Your task to perform on an android device: add a label to a message in the gmail app Image 0: 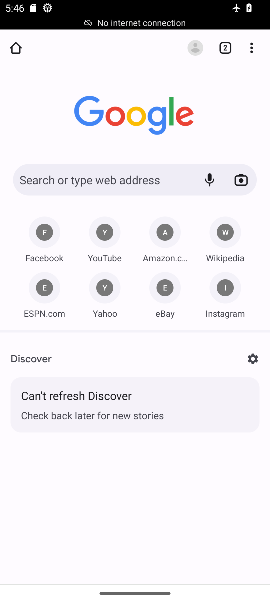
Step 0: press home button
Your task to perform on an android device: add a label to a message in the gmail app Image 1: 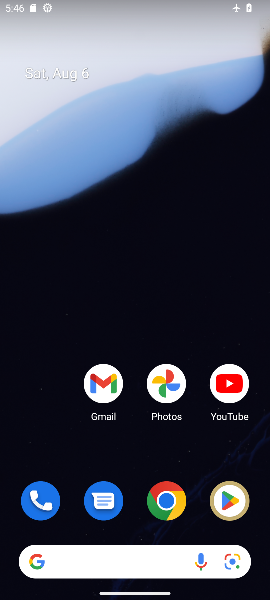
Step 1: click (109, 386)
Your task to perform on an android device: add a label to a message in the gmail app Image 2: 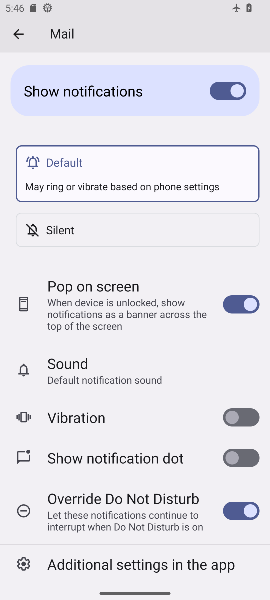
Step 2: click (21, 32)
Your task to perform on an android device: add a label to a message in the gmail app Image 3: 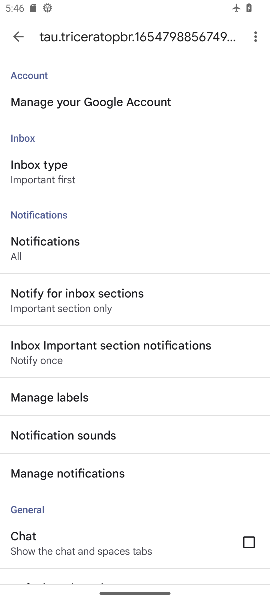
Step 3: click (20, 32)
Your task to perform on an android device: add a label to a message in the gmail app Image 4: 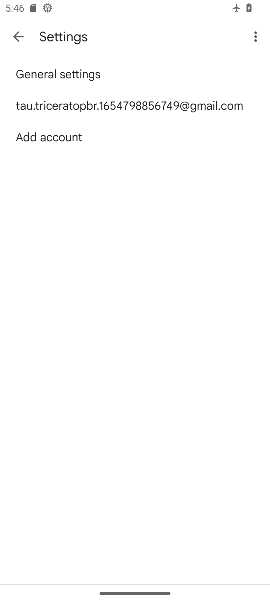
Step 4: click (19, 32)
Your task to perform on an android device: add a label to a message in the gmail app Image 5: 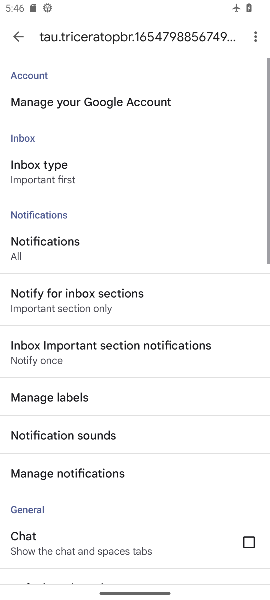
Step 5: click (19, 32)
Your task to perform on an android device: add a label to a message in the gmail app Image 6: 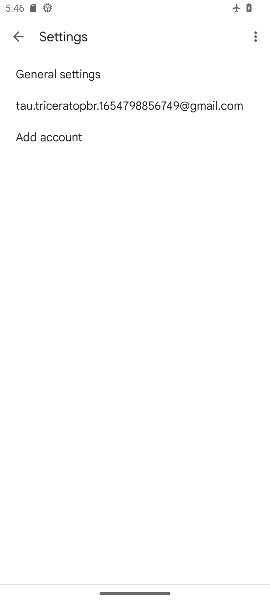
Step 6: press back button
Your task to perform on an android device: add a label to a message in the gmail app Image 7: 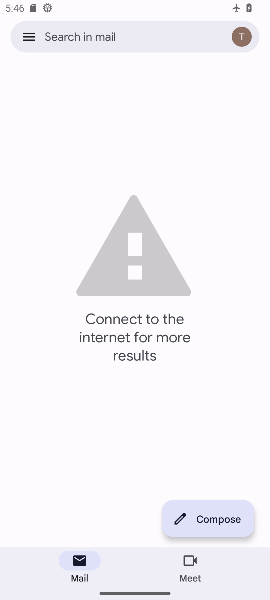
Step 7: click (28, 36)
Your task to perform on an android device: add a label to a message in the gmail app Image 8: 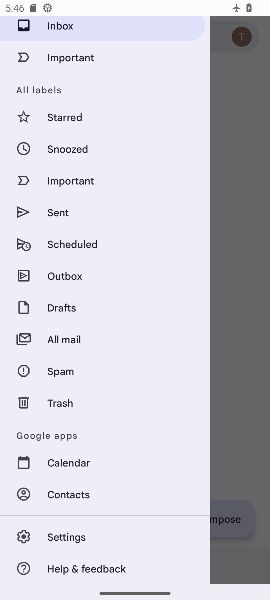
Step 8: click (92, 334)
Your task to perform on an android device: add a label to a message in the gmail app Image 9: 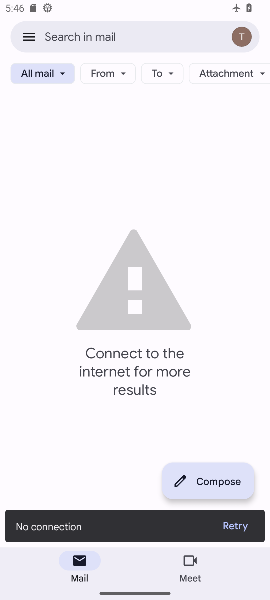
Step 9: task complete